Your task to perform on an android device: see sites visited before in the chrome app Image 0: 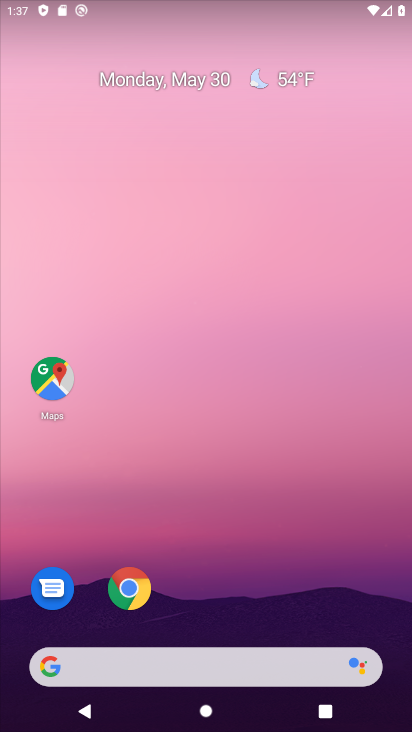
Step 0: click (127, 589)
Your task to perform on an android device: see sites visited before in the chrome app Image 1: 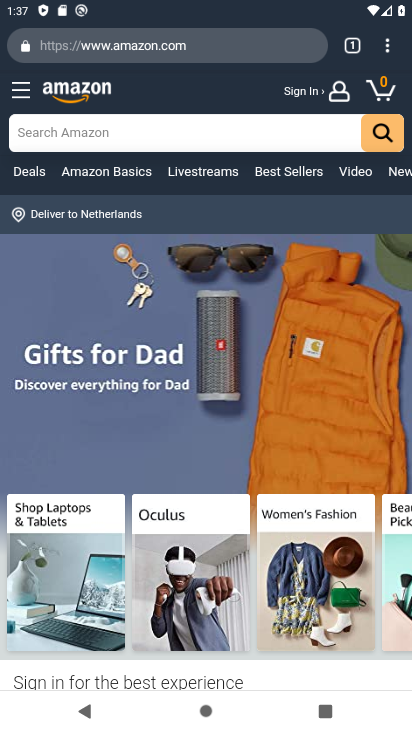
Step 1: click (382, 52)
Your task to perform on an android device: see sites visited before in the chrome app Image 2: 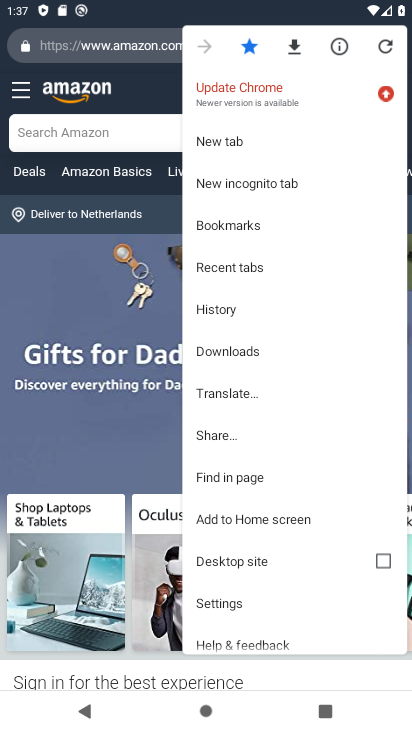
Step 2: click (236, 313)
Your task to perform on an android device: see sites visited before in the chrome app Image 3: 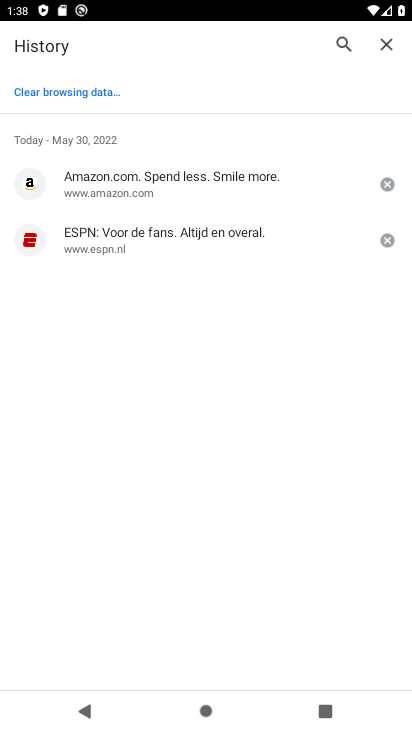
Step 3: task complete